Your task to perform on an android device: What is the recent news? Image 0: 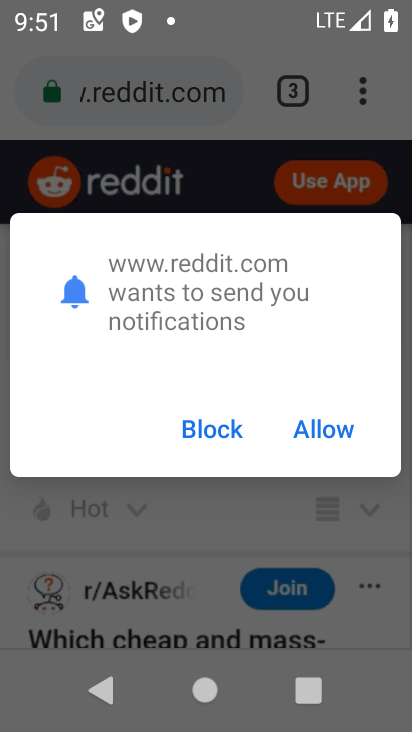
Step 0: press back button
Your task to perform on an android device: What is the recent news? Image 1: 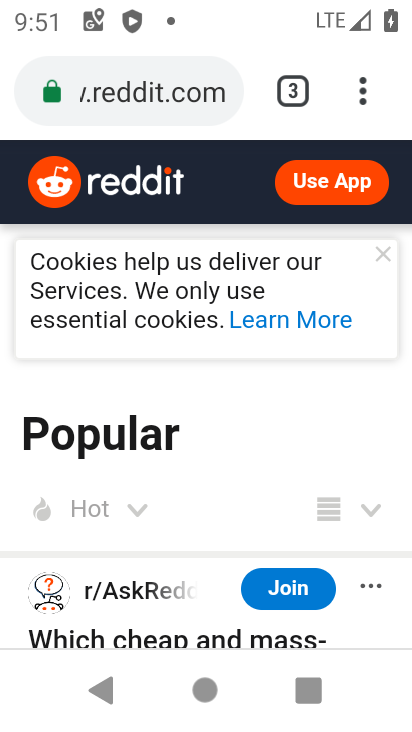
Step 1: press home button
Your task to perform on an android device: What is the recent news? Image 2: 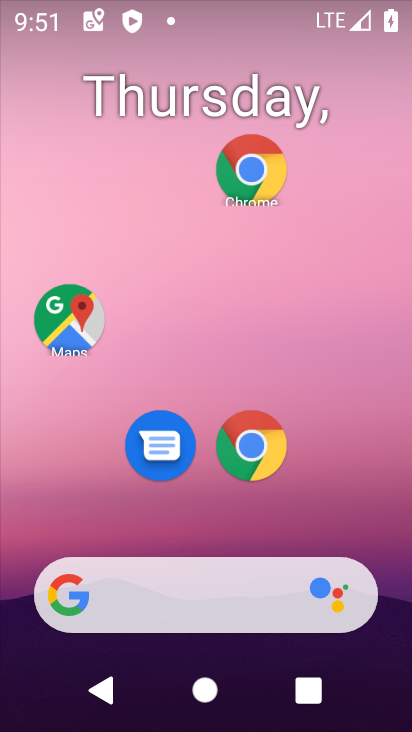
Step 2: click (222, 600)
Your task to perform on an android device: What is the recent news? Image 3: 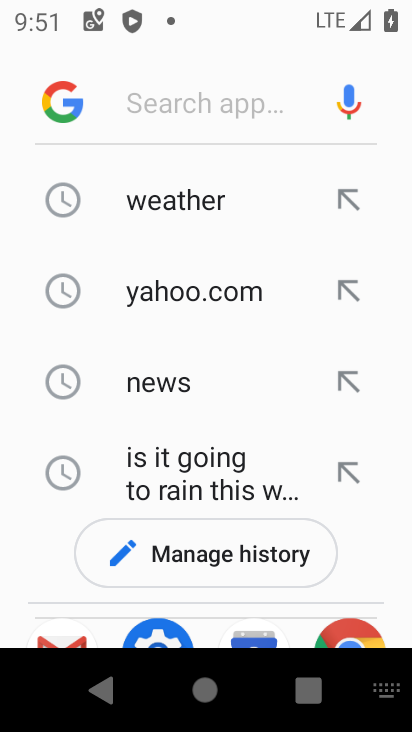
Step 3: click (159, 366)
Your task to perform on an android device: What is the recent news? Image 4: 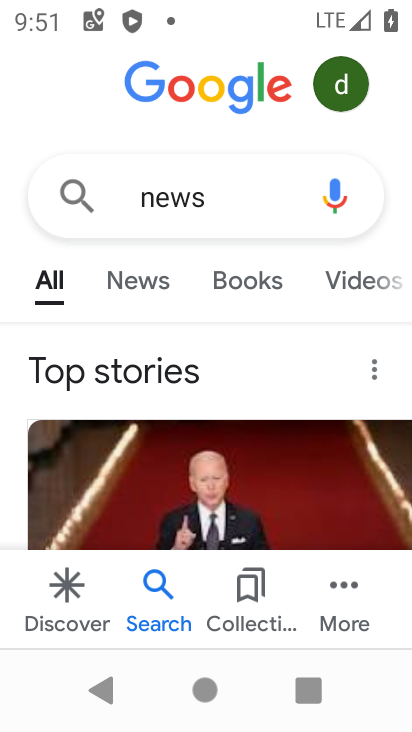
Step 4: click (154, 288)
Your task to perform on an android device: What is the recent news? Image 5: 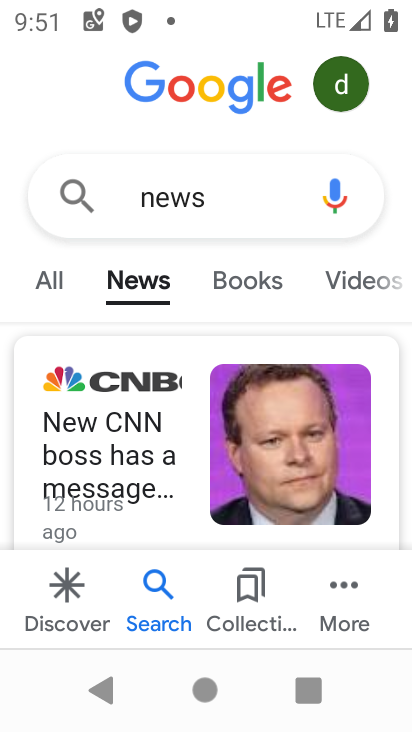
Step 5: task complete